Your task to perform on an android device: stop showing notifications on the lock screen Image 0: 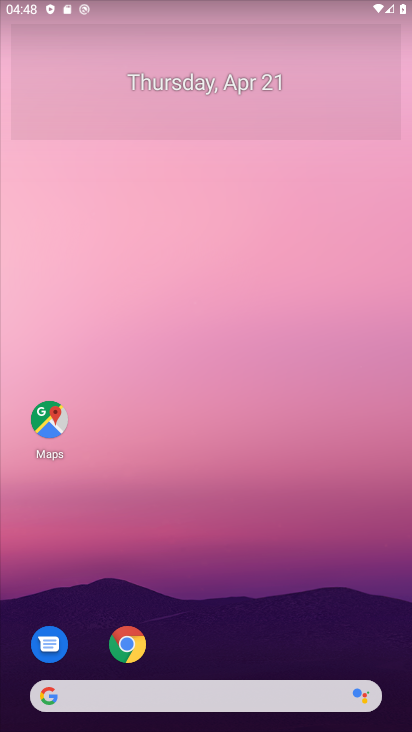
Step 0: drag from (312, 613) to (326, 225)
Your task to perform on an android device: stop showing notifications on the lock screen Image 1: 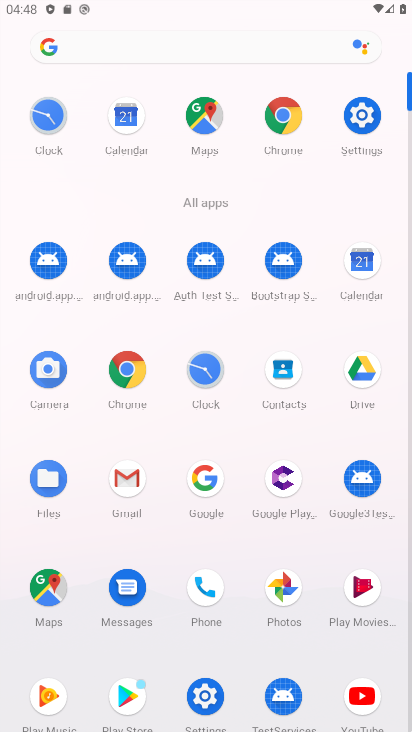
Step 1: click (360, 120)
Your task to perform on an android device: stop showing notifications on the lock screen Image 2: 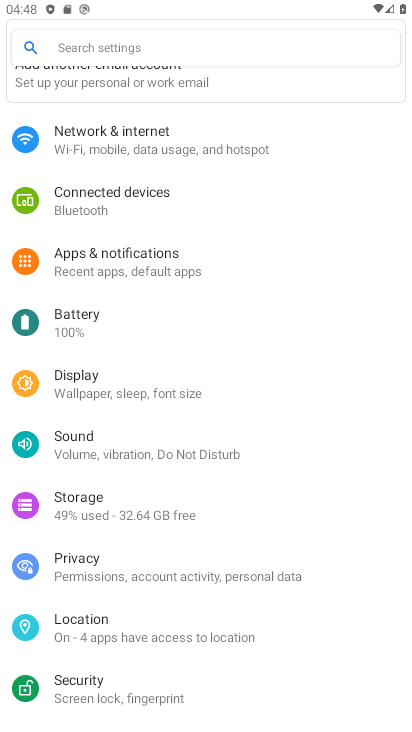
Step 2: click (127, 263)
Your task to perform on an android device: stop showing notifications on the lock screen Image 3: 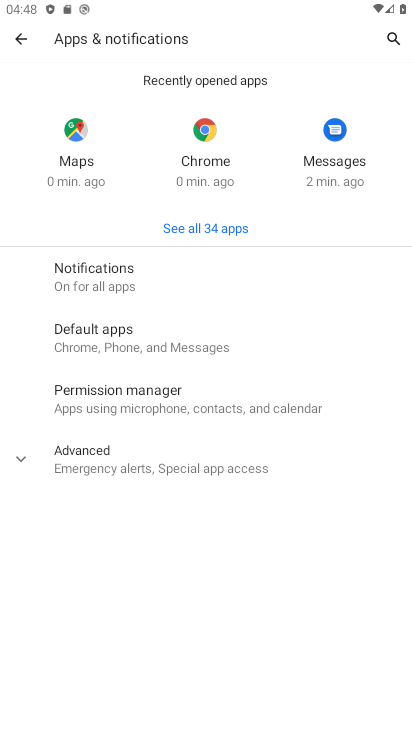
Step 3: click (125, 279)
Your task to perform on an android device: stop showing notifications on the lock screen Image 4: 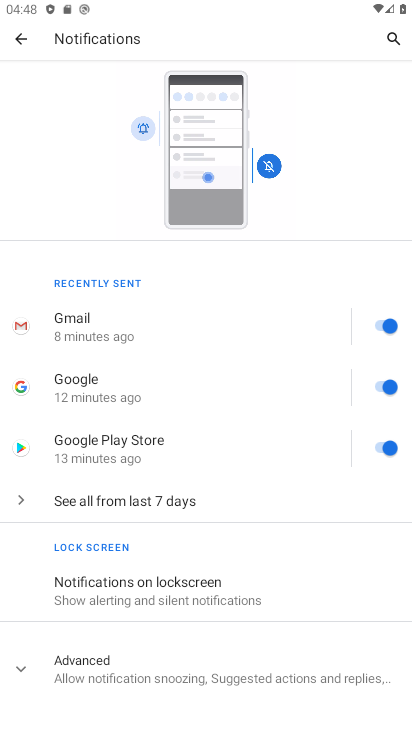
Step 4: drag from (264, 611) to (312, 195)
Your task to perform on an android device: stop showing notifications on the lock screen Image 5: 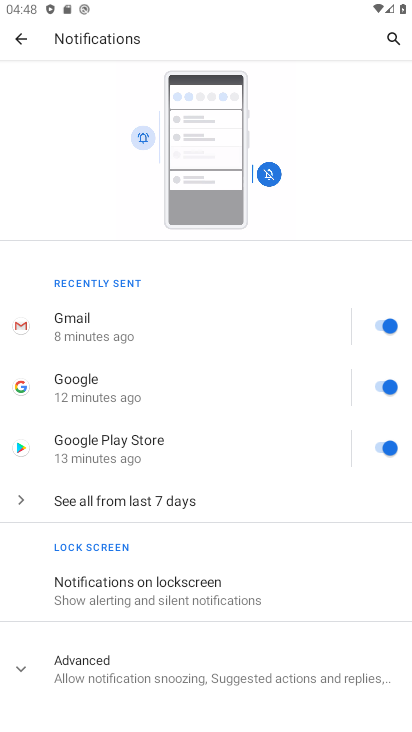
Step 5: click (192, 587)
Your task to perform on an android device: stop showing notifications on the lock screen Image 6: 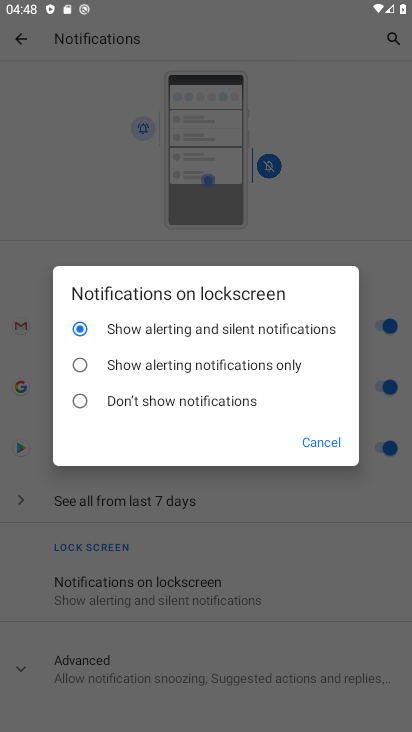
Step 6: click (195, 394)
Your task to perform on an android device: stop showing notifications on the lock screen Image 7: 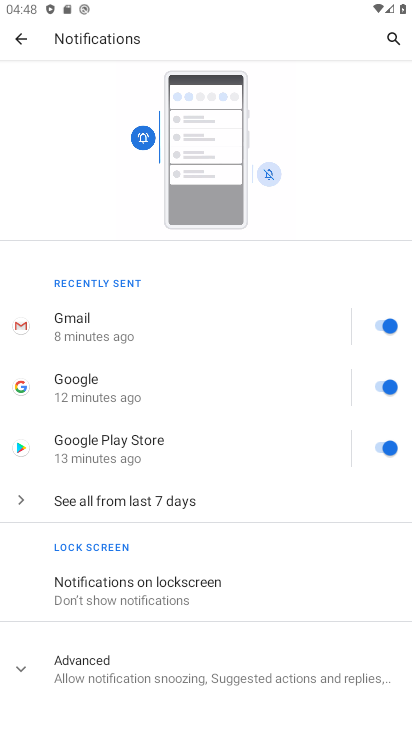
Step 7: task complete